Your task to perform on an android device: Search for amazon basics triple a on amazon, select the first entry, add it to the cart, then select checkout. Image 0: 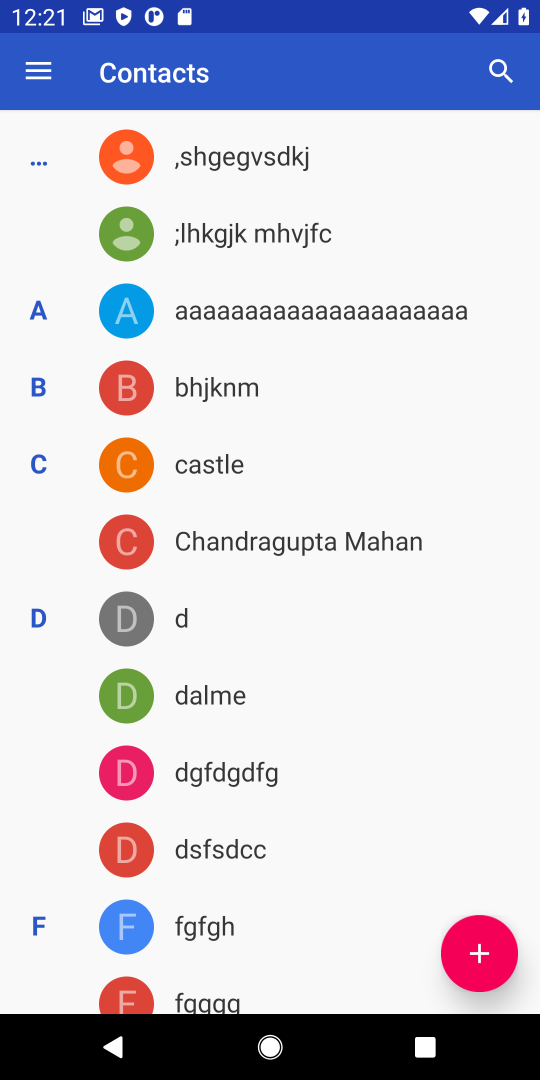
Step 0: press home button
Your task to perform on an android device: Search for amazon basics triple a on amazon, select the first entry, add it to the cart, then select checkout. Image 1: 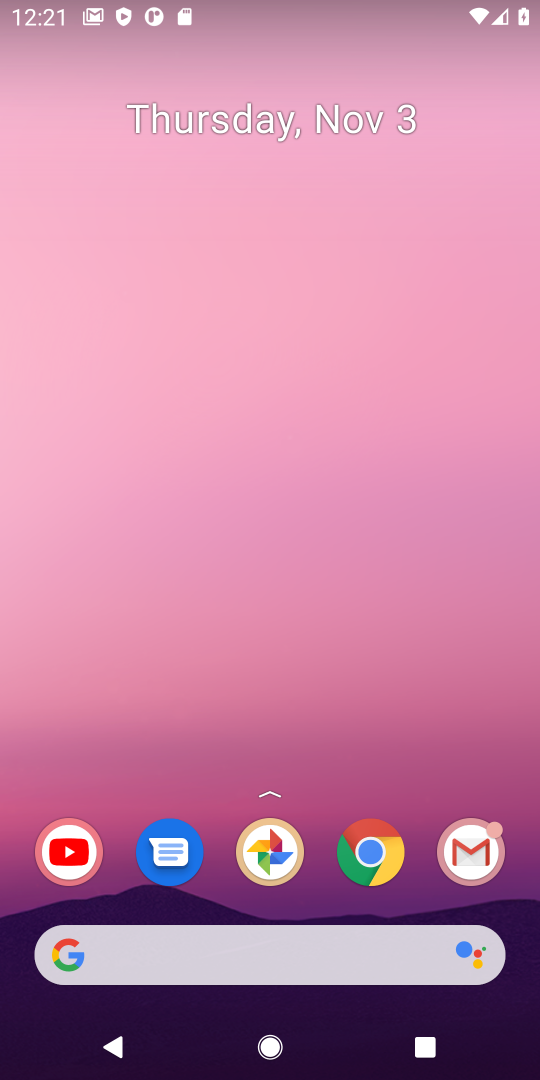
Step 1: click (373, 855)
Your task to perform on an android device: Search for amazon basics triple a on amazon, select the first entry, add it to the cart, then select checkout. Image 2: 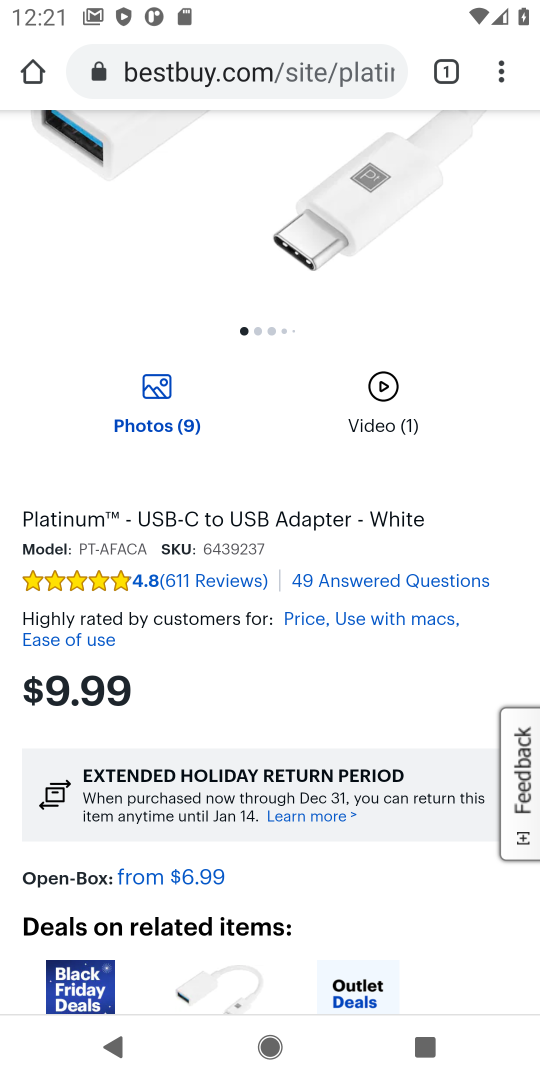
Step 2: click (207, 83)
Your task to perform on an android device: Search for amazon basics triple a on amazon, select the first entry, add it to the cart, then select checkout. Image 3: 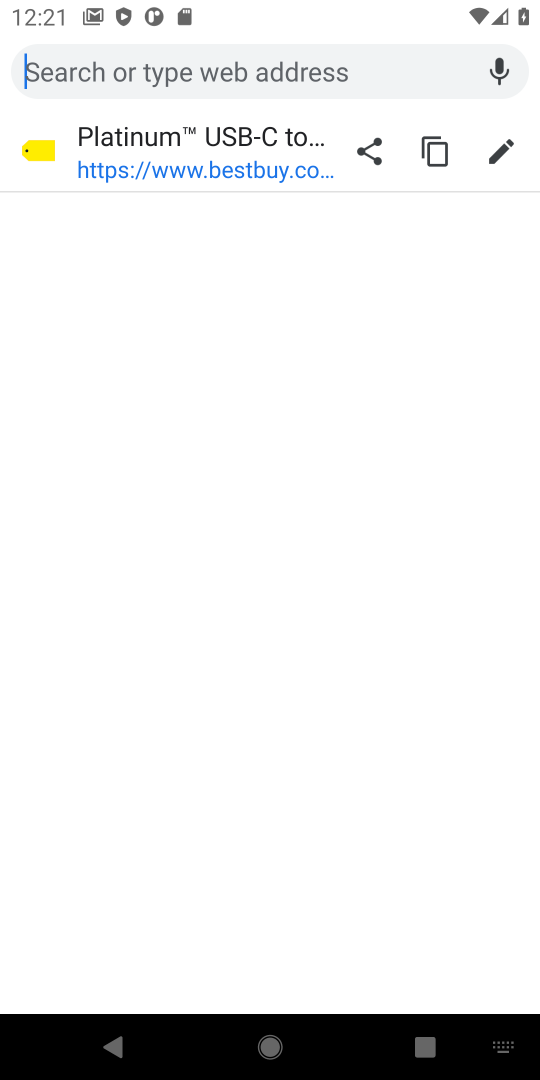
Step 3: type "amazon.com"
Your task to perform on an android device: Search for amazon basics triple a on amazon, select the first entry, add it to the cart, then select checkout. Image 4: 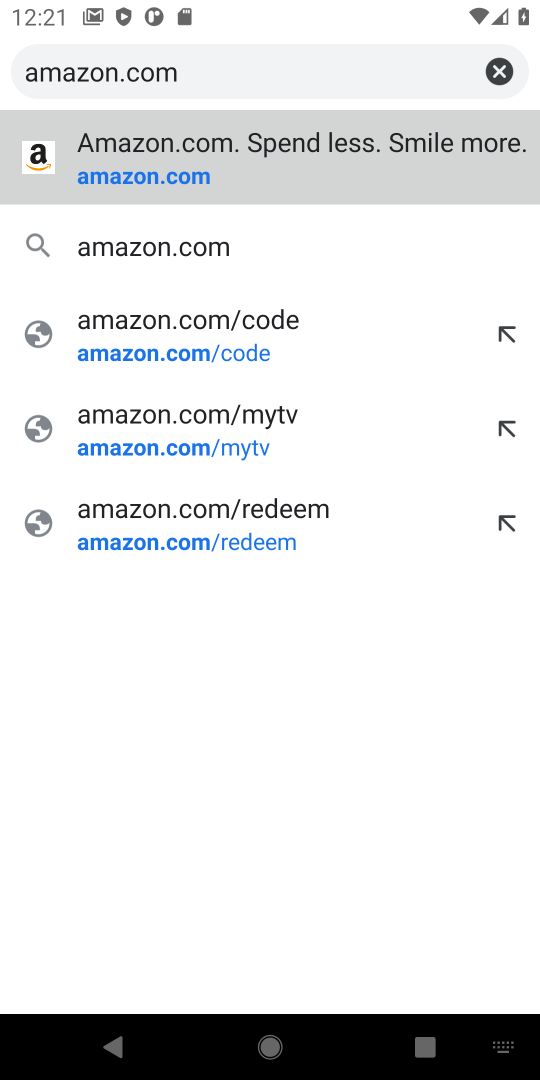
Step 4: click (129, 173)
Your task to perform on an android device: Search for amazon basics triple a on amazon, select the first entry, add it to the cart, then select checkout. Image 5: 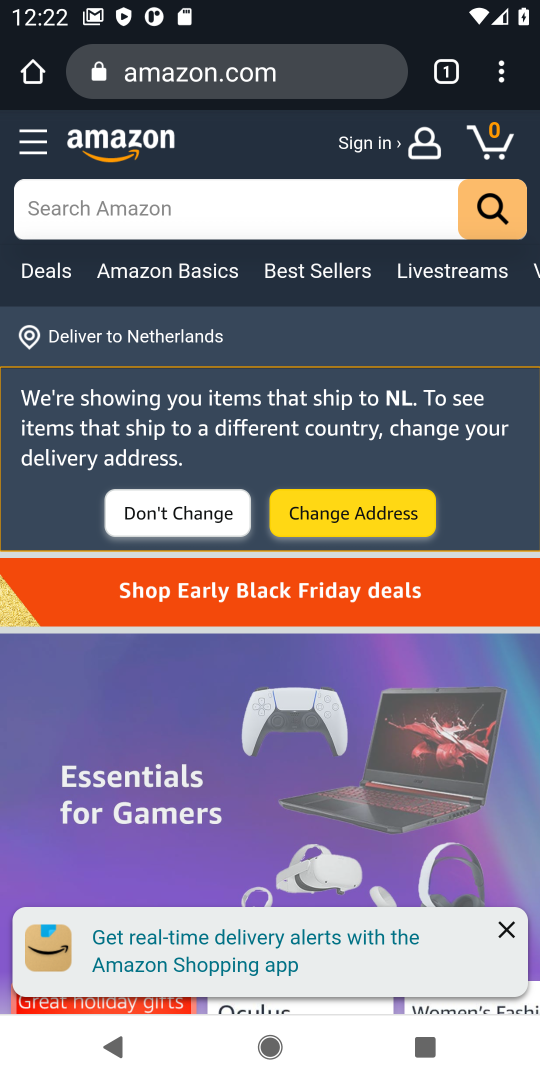
Step 5: click (296, 203)
Your task to perform on an android device: Search for amazon basics triple a on amazon, select the first entry, add it to the cart, then select checkout. Image 6: 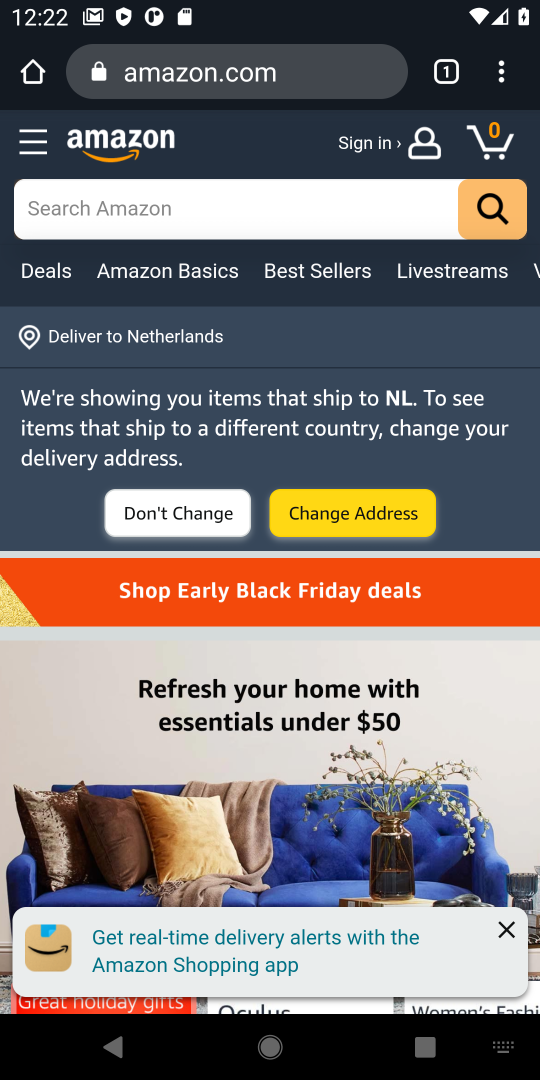
Step 6: type "amazon basics triple a "
Your task to perform on an android device: Search for amazon basics triple a on amazon, select the first entry, add it to the cart, then select checkout. Image 7: 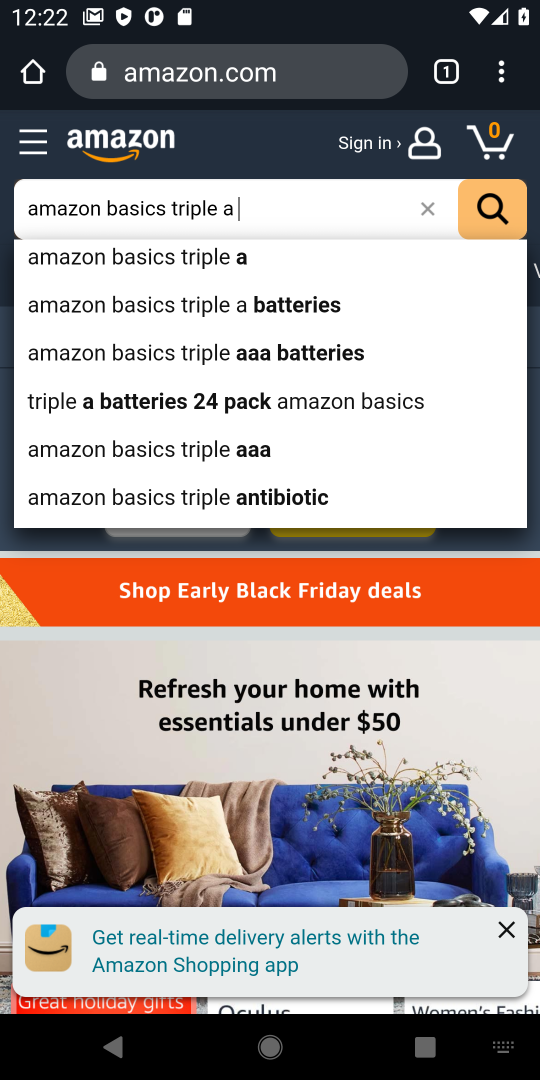
Step 7: click (172, 265)
Your task to perform on an android device: Search for amazon basics triple a on amazon, select the first entry, add it to the cart, then select checkout. Image 8: 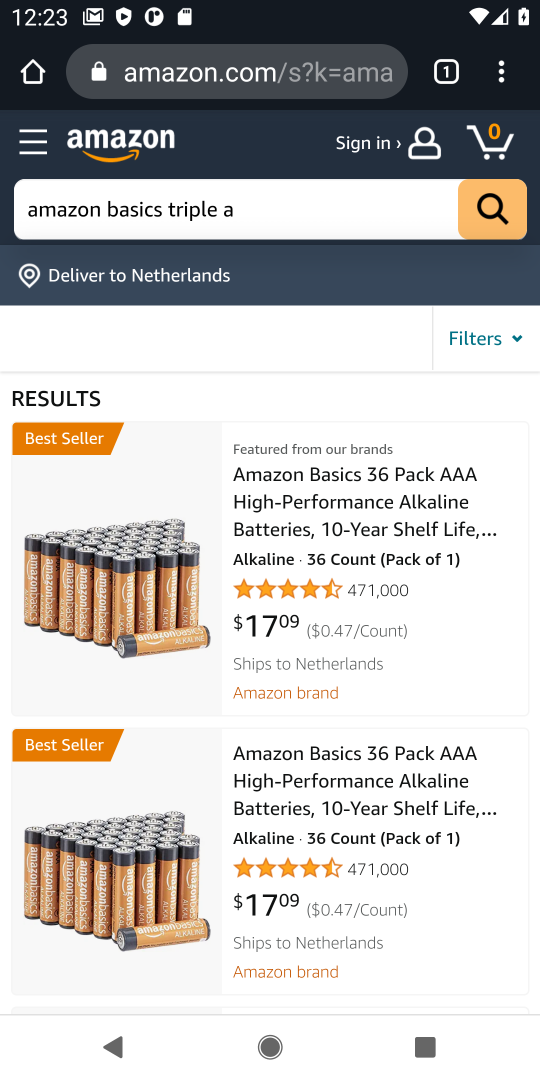
Step 8: click (305, 565)
Your task to perform on an android device: Search for amazon basics triple a on amazon, select the first entry, add it to the cart, then select checkout. Image 9: 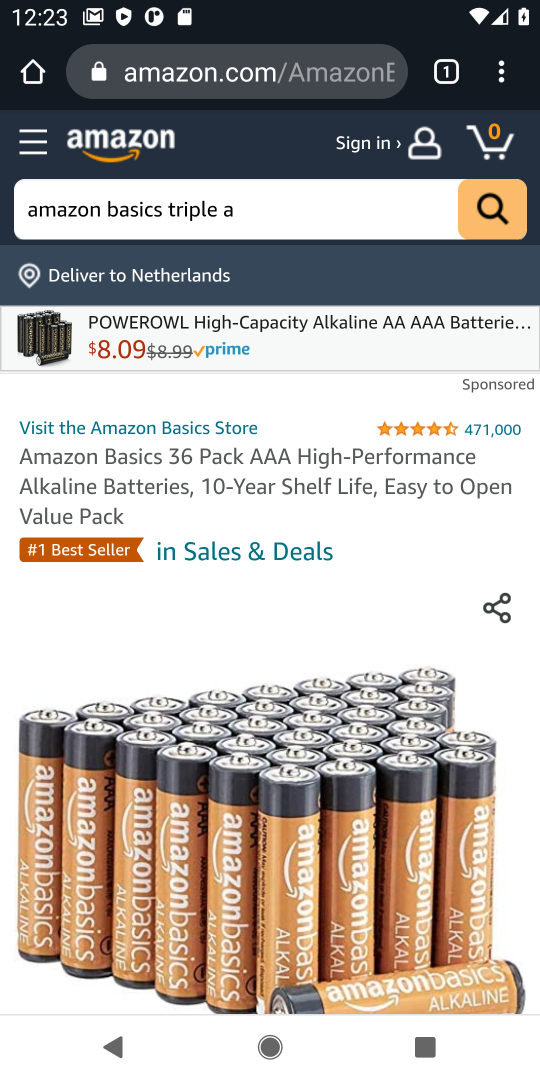
Step 9: drag from (283, 651) to (303, 287)
Your task to perform on an android device: Search for amazon basics triple a on amazon, select the first entry, add it to the cart, then select checkout. Image 10: 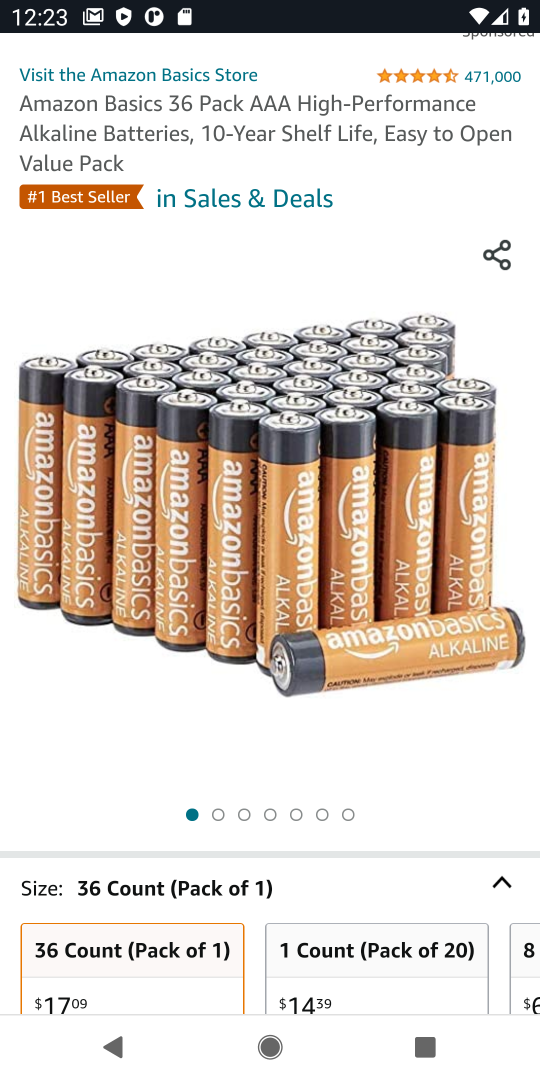
Step 10: drag from (278, 687) to (300, 257)
Your task to perform on an android device: Search for amazon basics triple a on amazon, select the first entry, add it to the cart, then select checkout. Image 11: 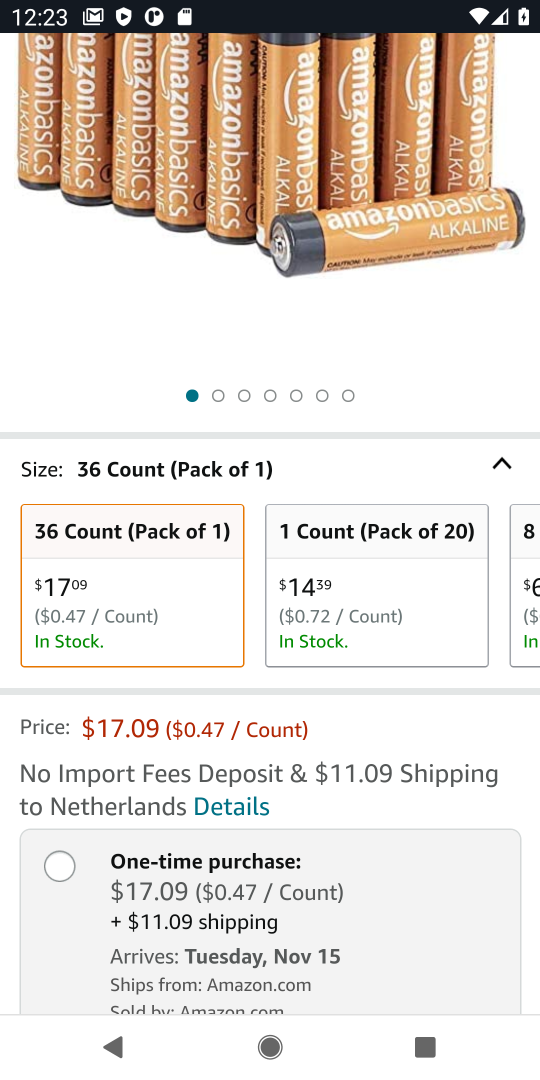
Step 11: drag from (254, 707) to (256, 269)
Your task to perform on an android device: Search for amazon basics triple a on amazon, select the first entry, add it to the cart, then select checkout. Image 12: 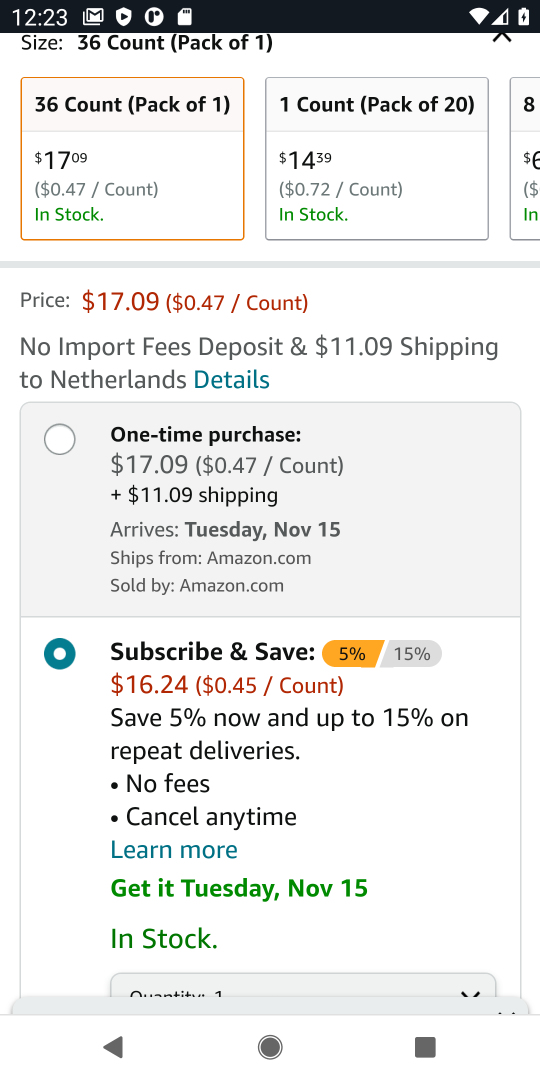
Step 12: drag from (226, 723) to (255, 461)
Your task to perform on an android device: Search for amazon basics triple a on amazon, select the first entry, add it to the cart, then select checkout. Image 13: 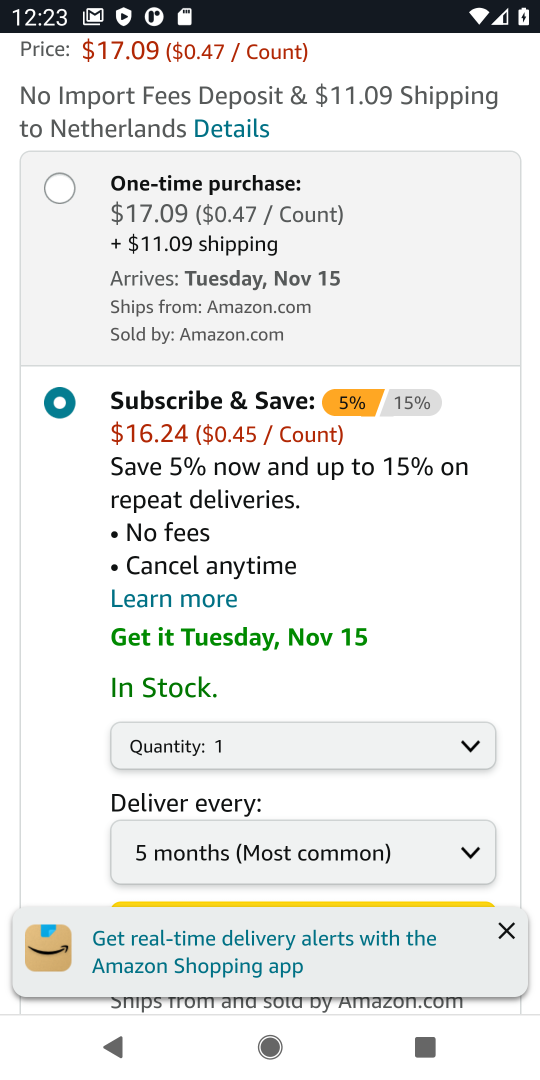
Step 13: click (55, 191)
Your task to perform on an android device: Search for amazon basics triple a on amazon, select the first entry, add it to the cart, then select checkout. Image 14: 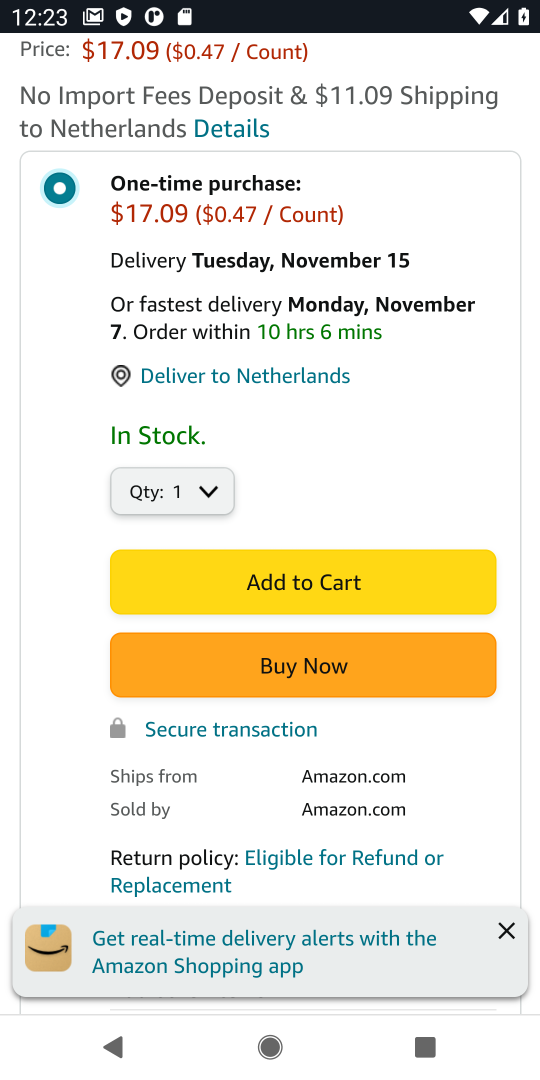
Step 14: click (324, 580)
Your task to perform on an android device: Search for amazon basics triple a on amazon, select the first entry, add it to the cart, then select checkout. Image 15: 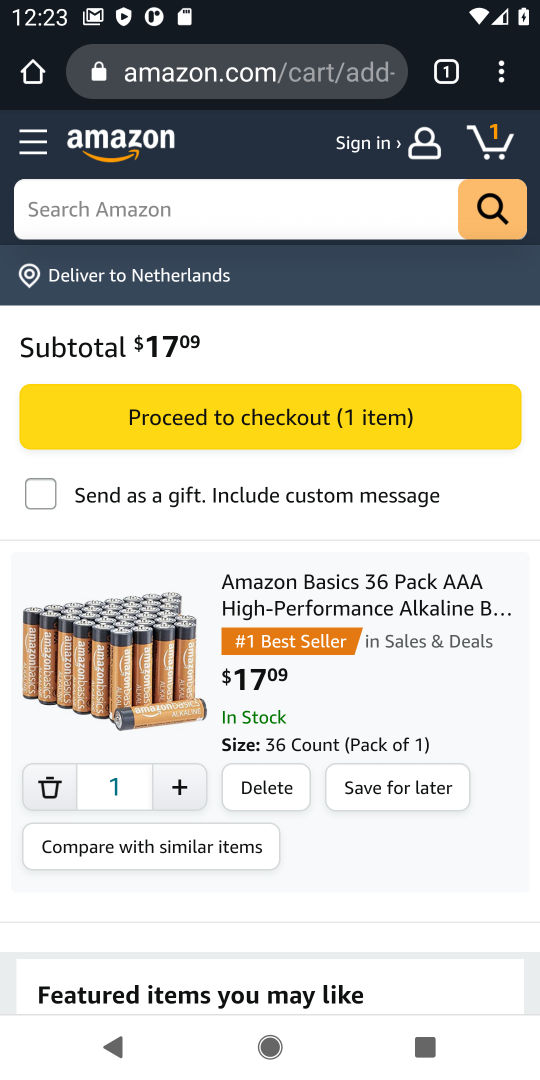
Step 15: click (221, 418)
Your task to perform on an android device: Search for amazon basics triple a on amazon, select the first entry, add it to the cart, then select checkout. Image 16: 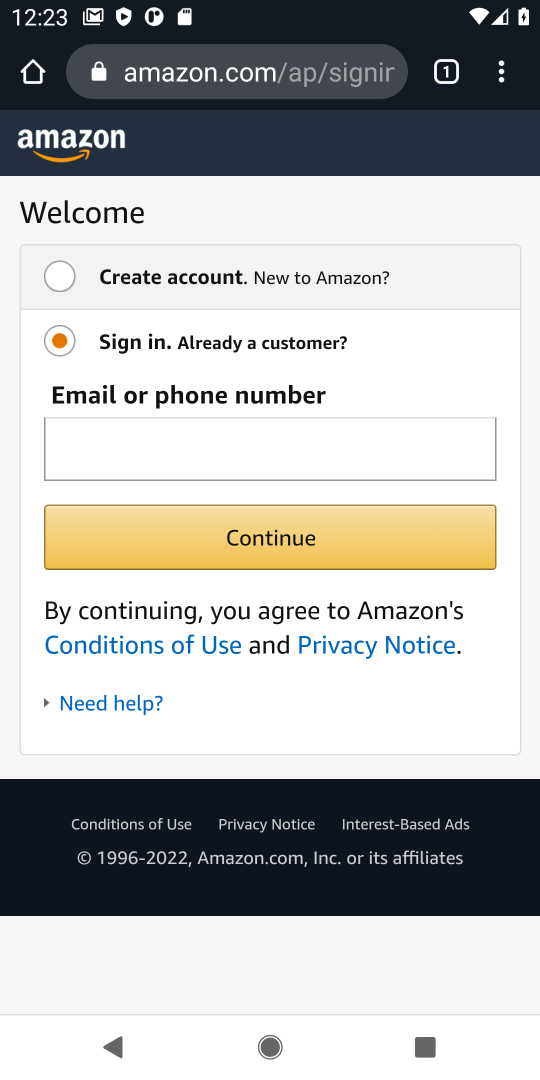
Step 16: task complete